Your task to perform on an android device: choose inbox layout in the gmail app Image 0: 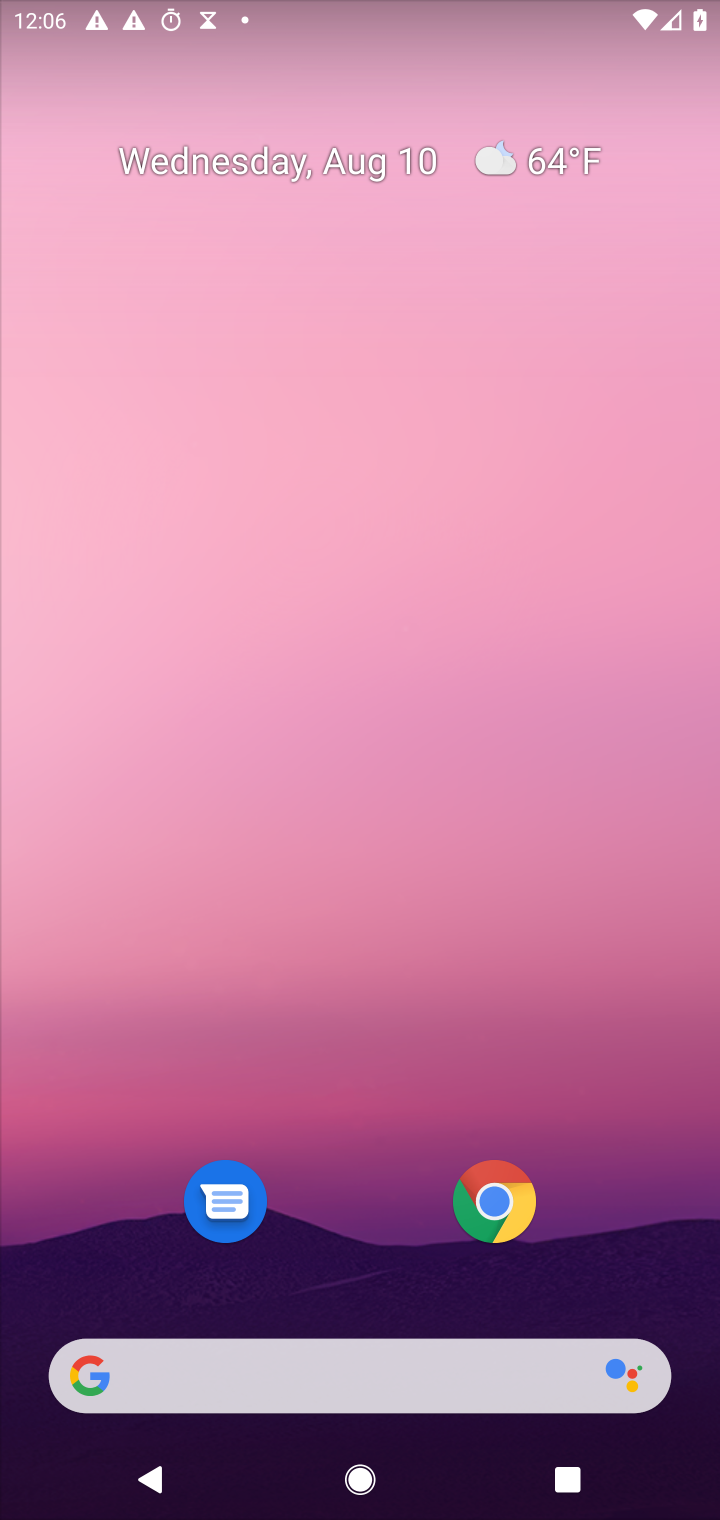
Step 0: press home button
Your task to perform on an android device: choose inbox layout in the gmail app Image 1: 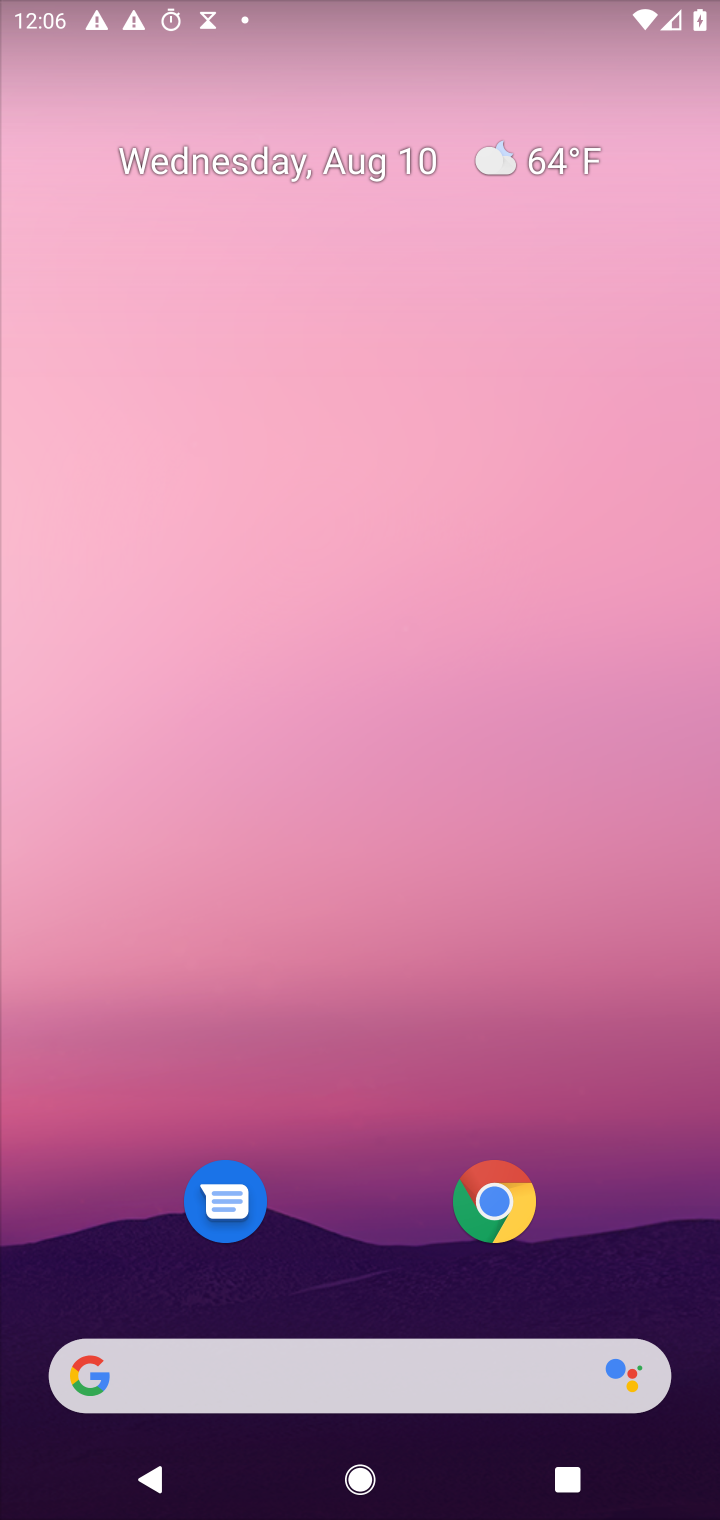
Step 1: drag from (370, 1224) to (673, 638)
Your task to perform on an android device: choose inbox layout in the gmail app Image 2: 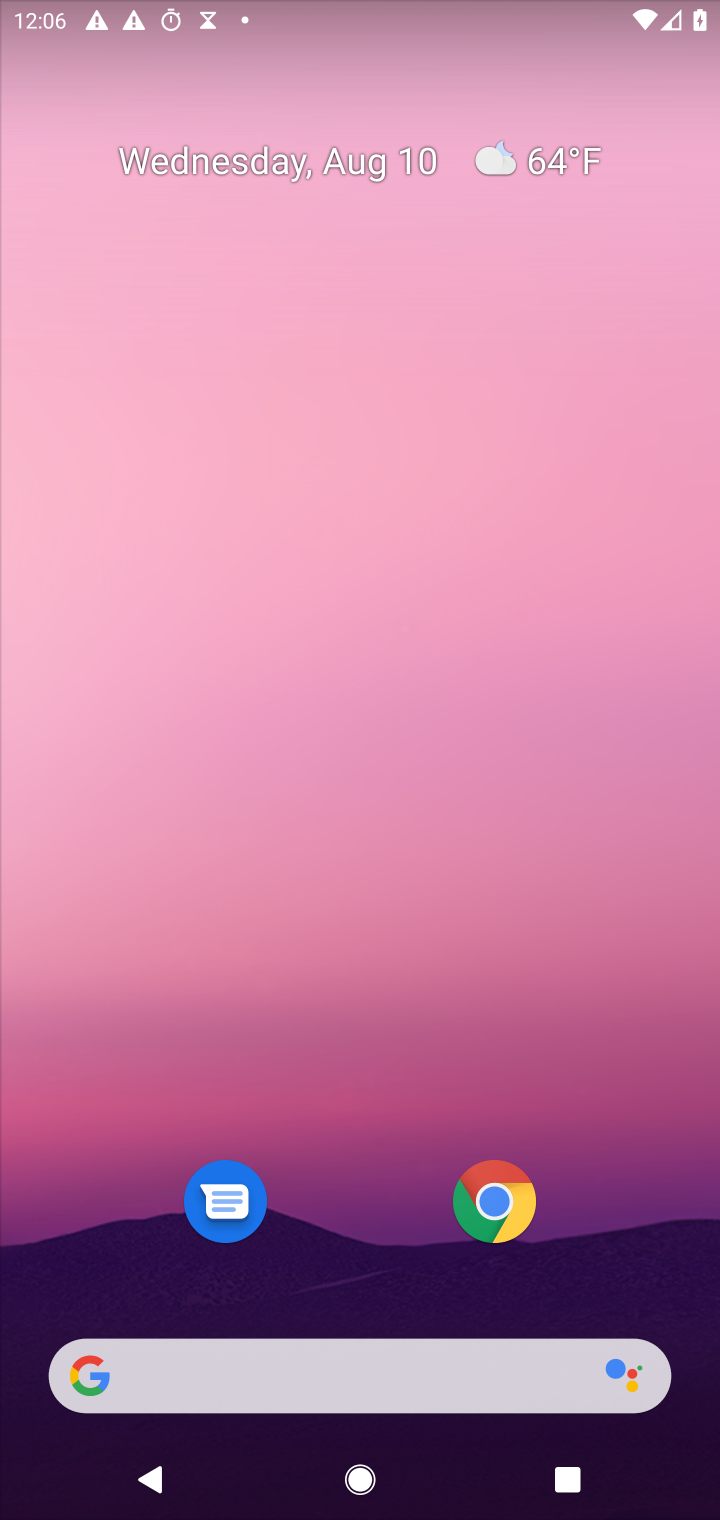
Step 2: drag from (340, 1227) to (339, 154)
Your task to perform on an android device: choose inbox layout in the gmail app Image 3: 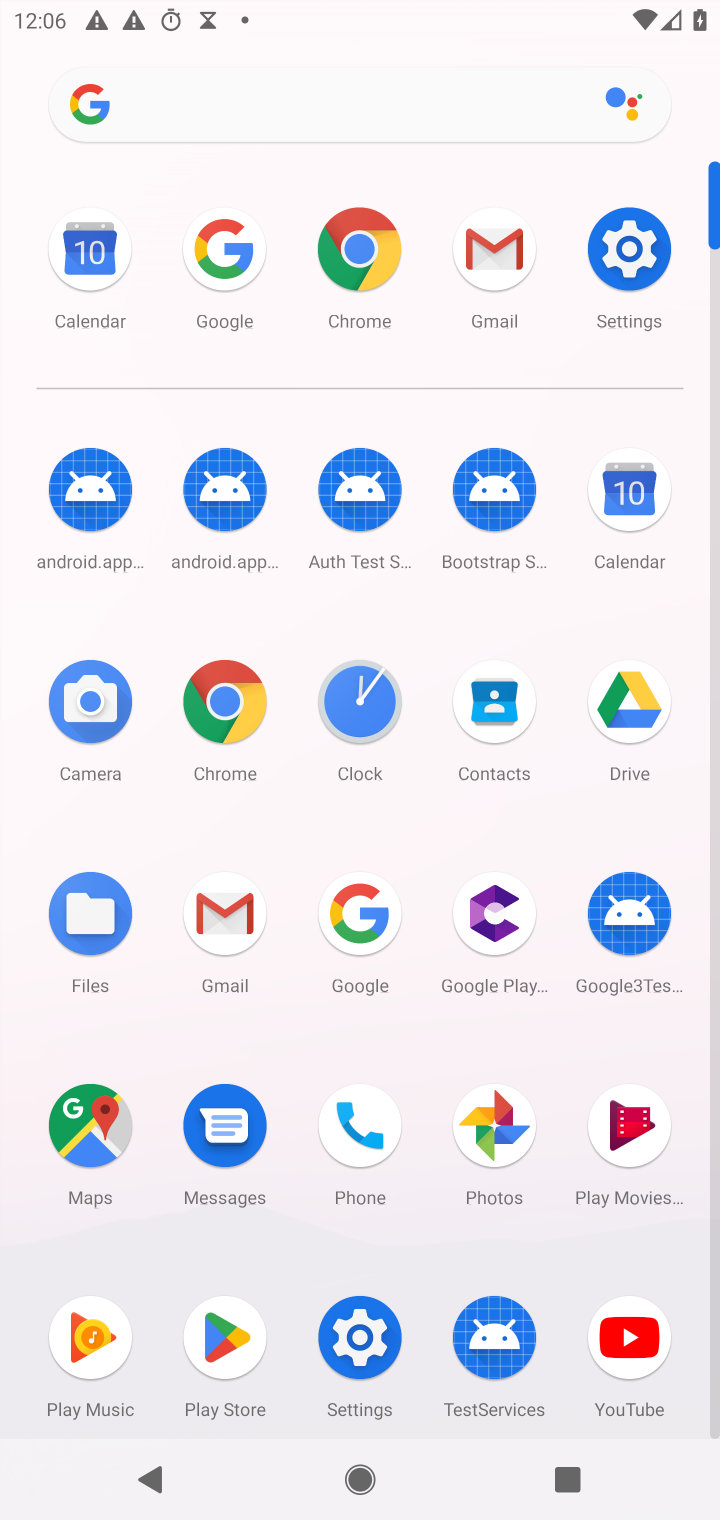
Step 3: click (484, 249)
Your task to perform on an android device: choose inbox layout in the gmail app Image 4: 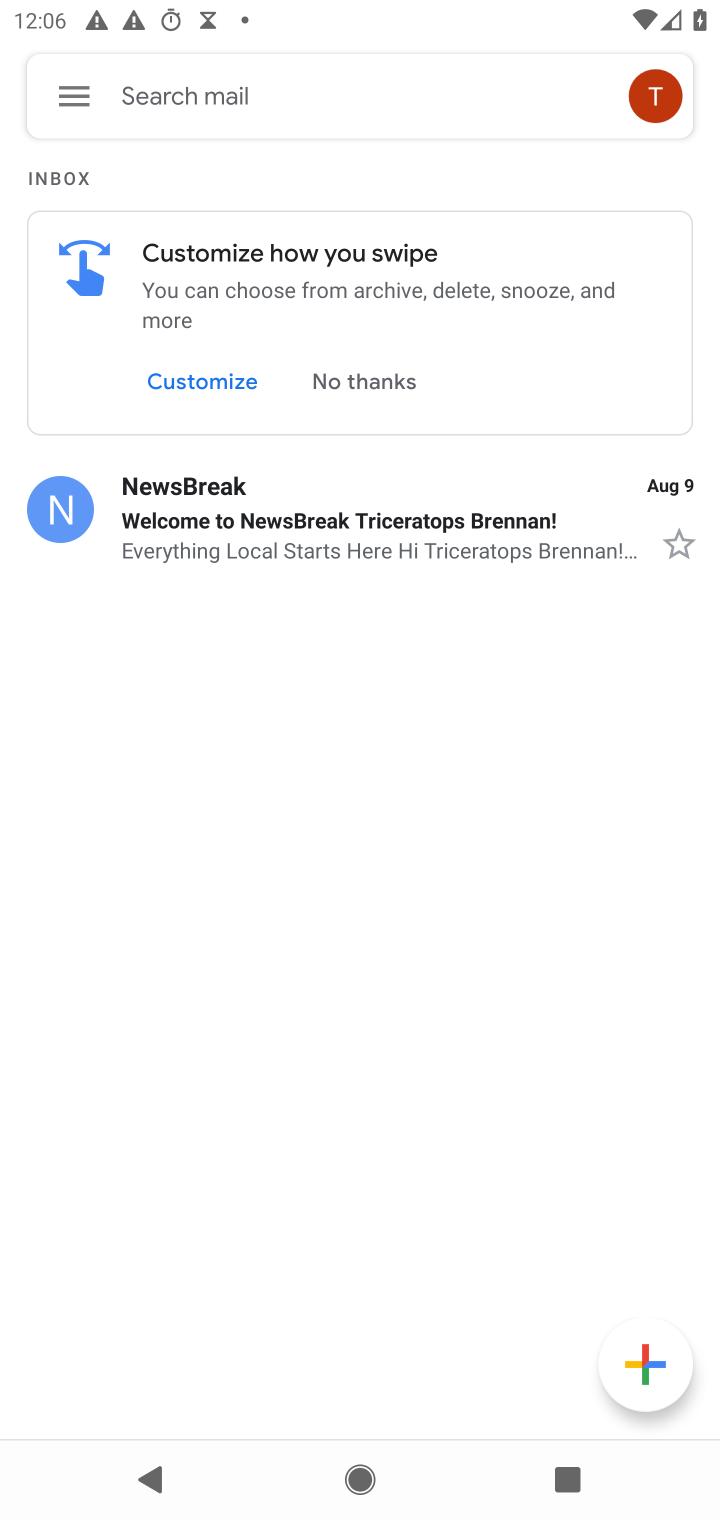
Step 4: click (69, 86)
Your task to perform on an android device: choose inbox layout in the gmail app Image 5: 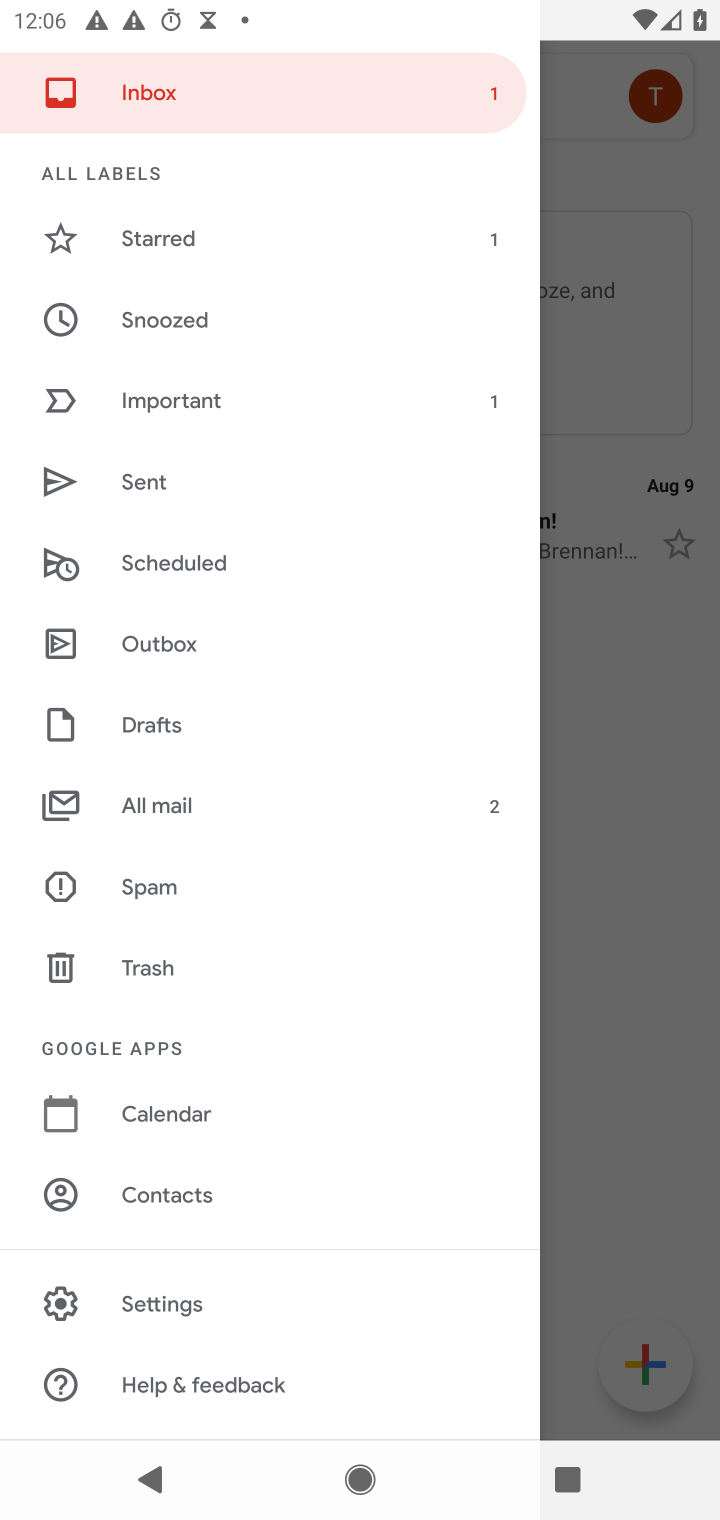
Step 5: click (157, 1288)
Your task to perform on an android device: choose inbox layout in the gmail app Image 6: 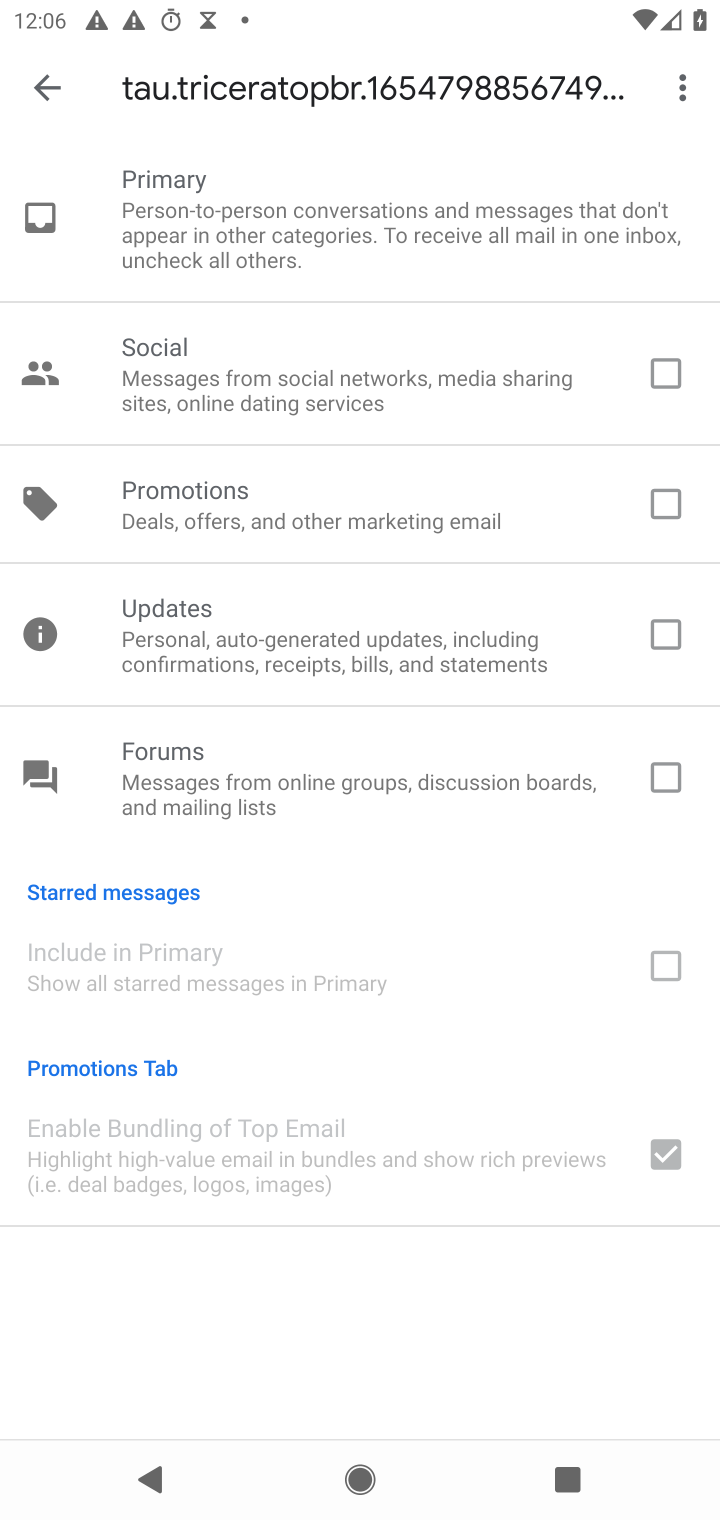
Step 6: task complete